Your task to perform on an android device: turn off data saver in the chrome app Image 0: 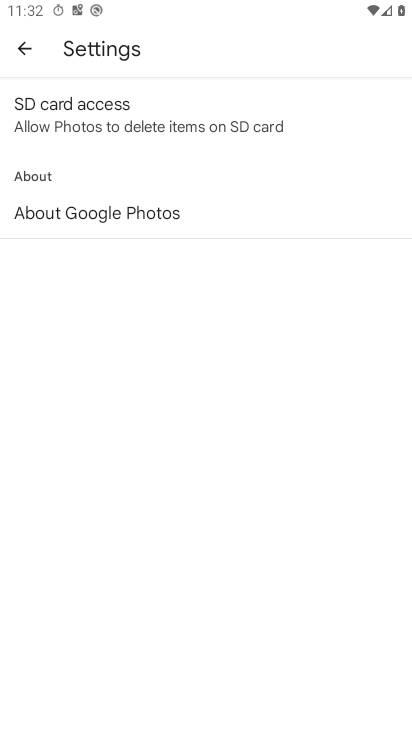
Step 0: press home button
Your task to perform on an android device: turn off data saver in the chrome app Image 1: 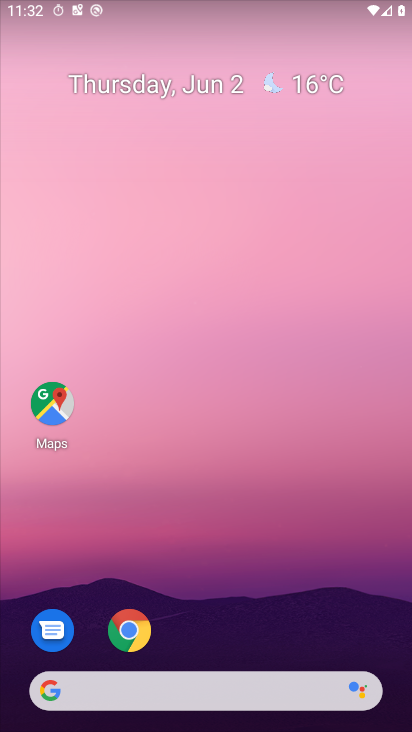
Step 1: drag from (213, 624) to (242, 145)
Your task to perform on an android device: turn off data saver in the chrome app Image 2: 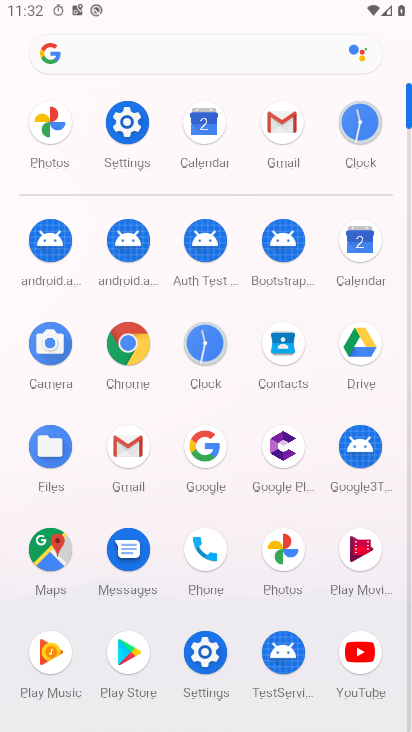
Step 2: click (134, 353)
Your task to perform on an android device: turn off data saver in the chrome app Image 3: 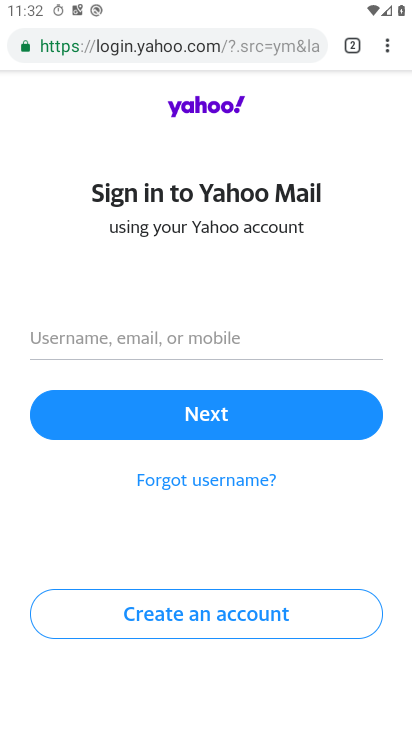
Step 3: click (383, 53)
Your task to perform on an android device: turn off data saver in the chrome app Image 4: 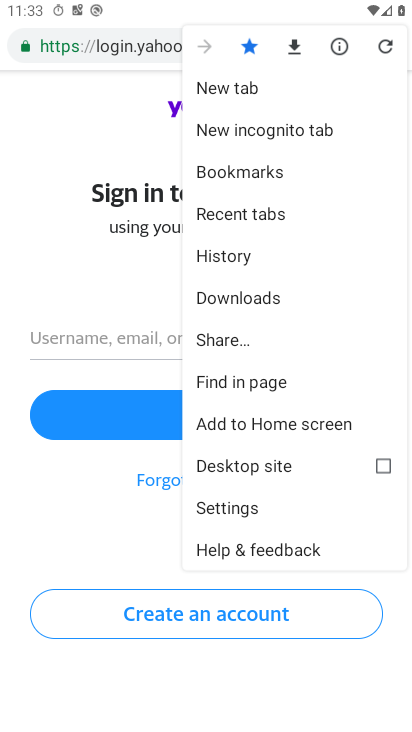
Step 4: click (241, 509)
Your task to perform on an android device: turn off data saver in the chrome app Image 5: 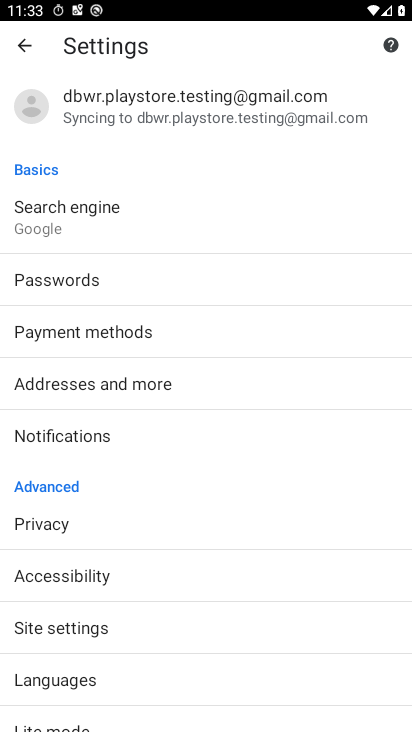
Step 5: drag from (91, 635) to (130, 389)
Your task to perform on an android device: turn off data saver in the chrome app Image 6: 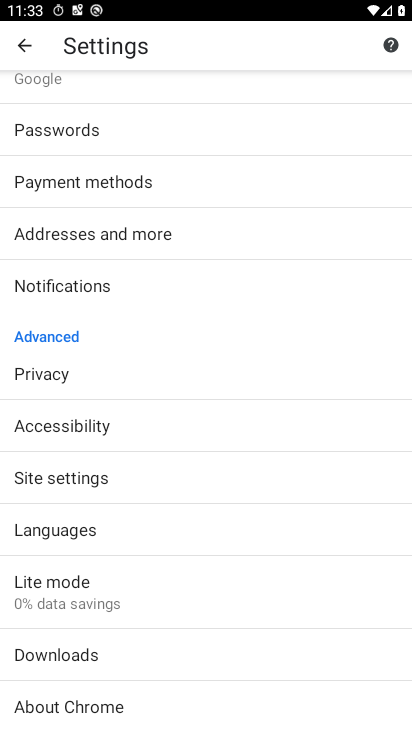
Step 6: click (91, 593)
Your task to perform on an android device: turn off data saver in the chrome app Image 7: 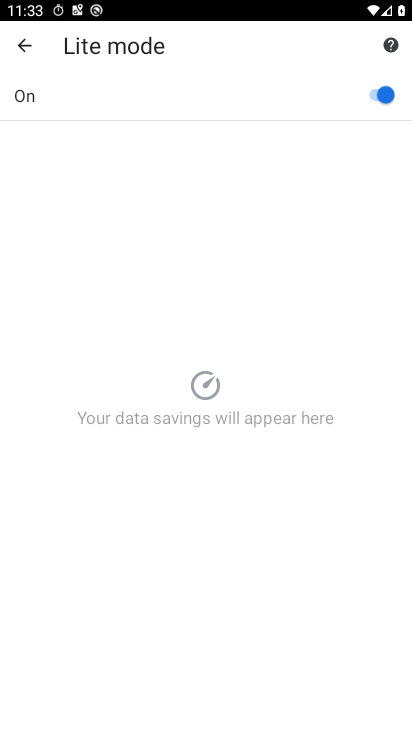
Step 7: click (361, 111)
Your task to perform on an android device: turn off data saver in the chrome app Image 8: 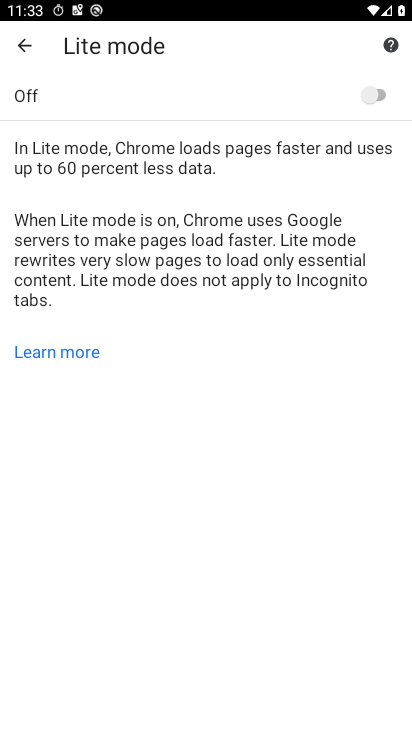
Step 8: task complete